Your task to perform on an android device: What's the weather? Image 0: 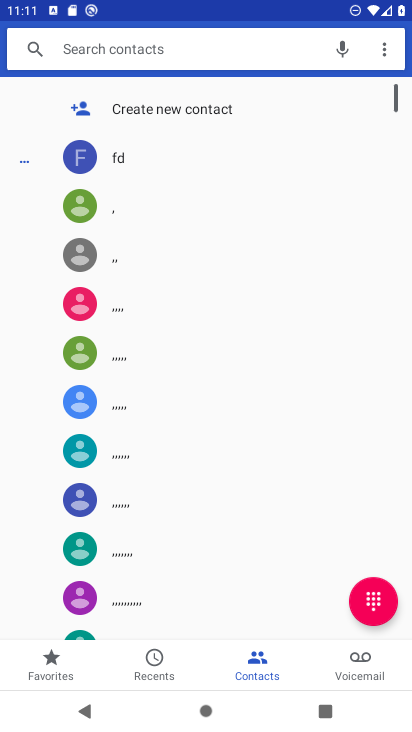
Step 0: task complete